Your task to perform on an android device: toggle sleep mode Image 0: 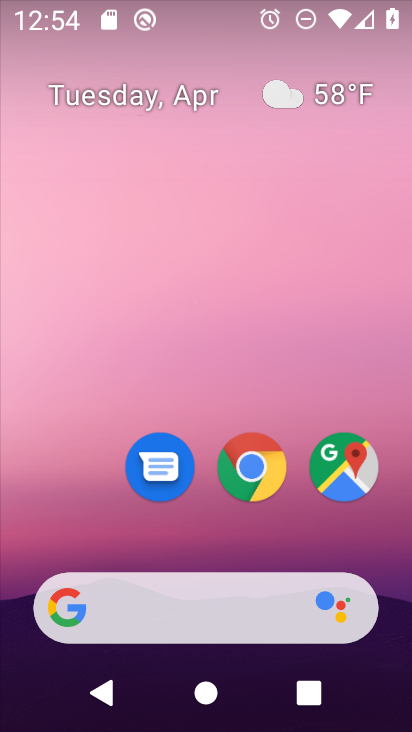
Step 0: drag from (148, 87) to (217, 660)
Your task to perform on an android device: toggle sleep mode Image 1: 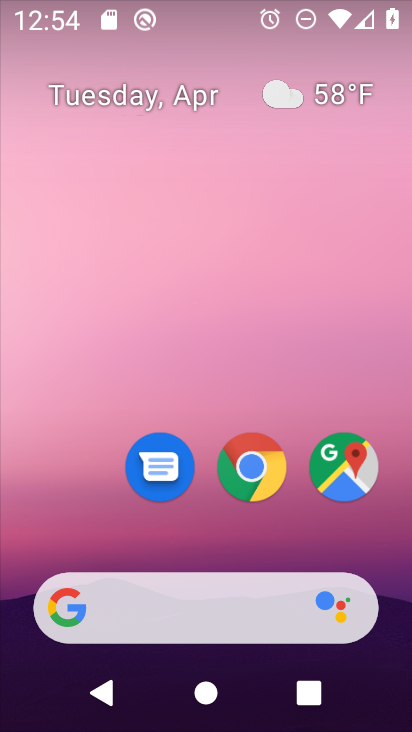
Step 1: drag from (212, 9) to (184, 672)
Your task to perform on an android device: toggle sleep mode Image 2: 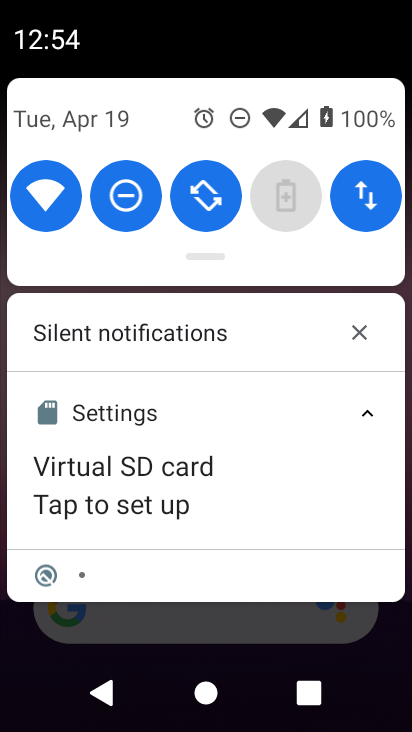
Step 2: drag from (159, 138) to (207, 719)
Your task to perform on an android device: toggle sleep mode Image 3: 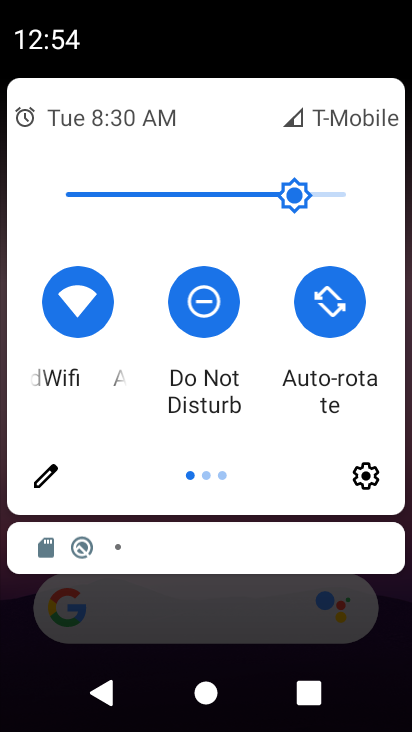
Step 3: click (369, 492)
Your task to perform on an android device: toggle sleep mode Image 4: 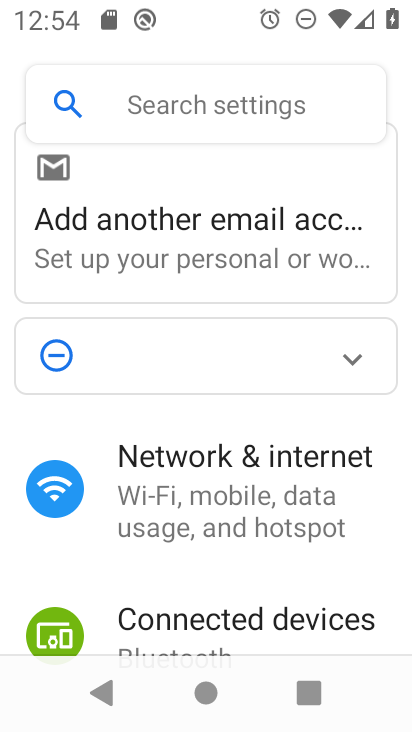
Step 4: task complete